Your task to perform on an android device: Search for seafood restaurants on Google Maps Image 0: 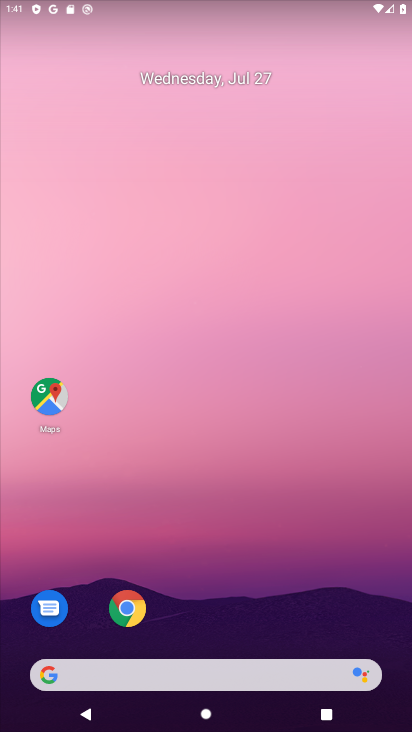
Step 0: click (47, 397)
Your task to perform on an android device: Search for seafood restaurants on Google Maps Image 1: 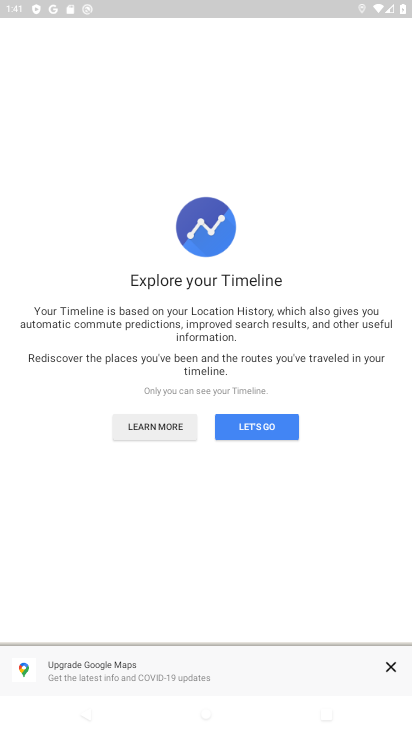
Step 1: click (391, 662)
Your task to perform on an android device: Search for seafood restaurants on Google Maps Image 2: 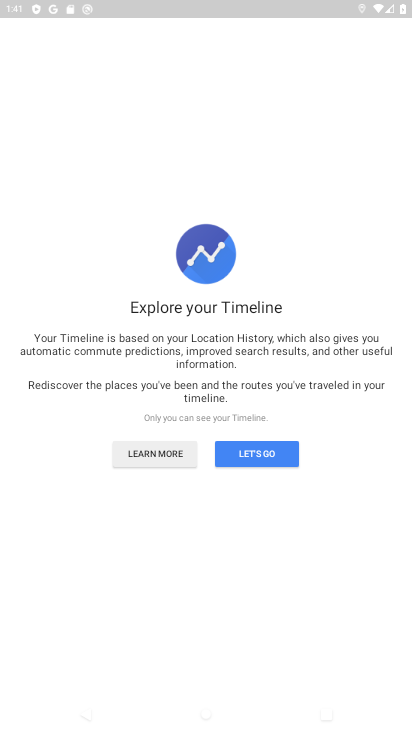
Step 2: click (239, 445)
Your task to perform on an android device: Search for seafood restaurants on Google Maps Image 3: 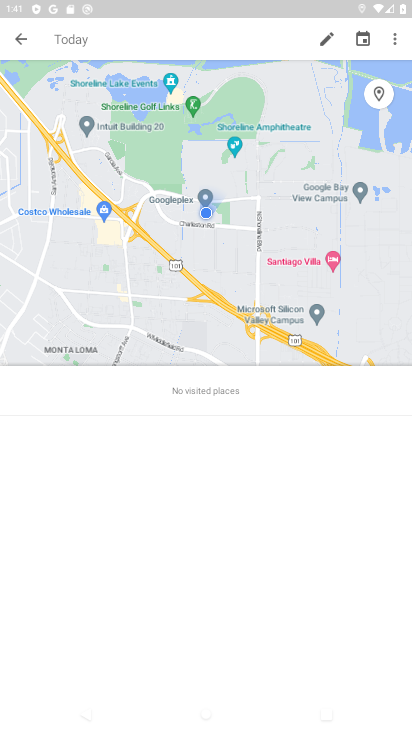
Step 3: click (15, 38)
Your task to perform on an android device: Search for seafood restaurants on Google Maps Image 4: 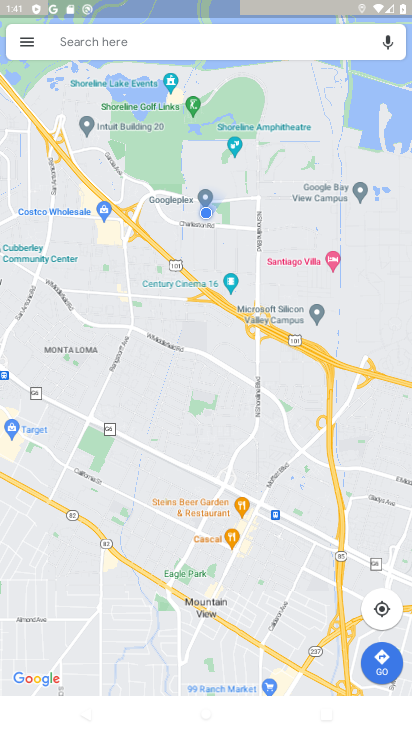
Step 4: click (67, 36)
Your task to perform on an android device: Search for seafood restaurants on Google Maps Image 5: 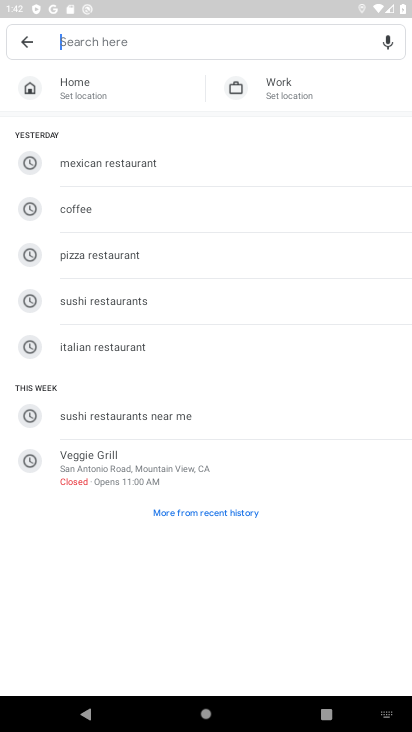
Step 5: type "seafood restaurants "
Your task to perform on an android device: Search for seafood restaurants on Google Maps Image 6: 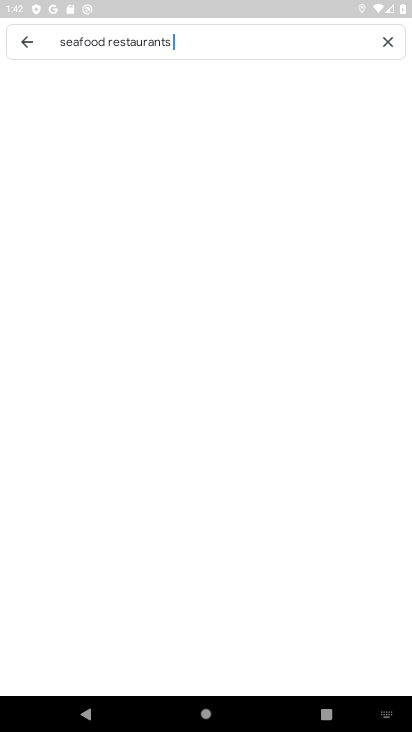
Step 6: type ""
Your task to perform on an android device: Search for seafood restaurants on Google Maps Image 7: 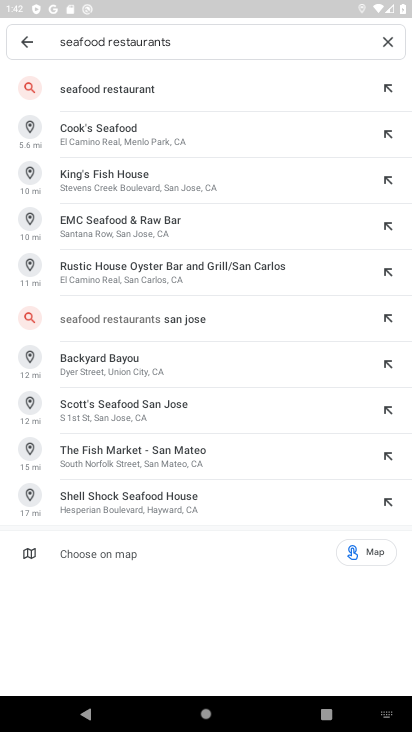
Step 7: click (93, 93)
Your task to perform on an android device: Search for seafood restaurants on Google Maps Image 8: 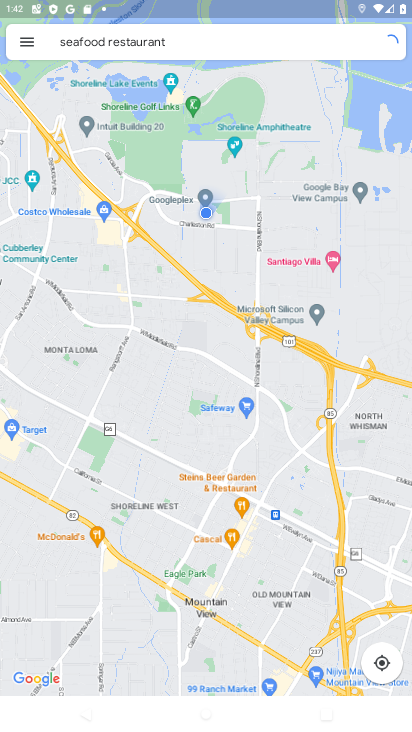
Step 8: task complete